Your task to perform on an android device: check out phone information Image 0: 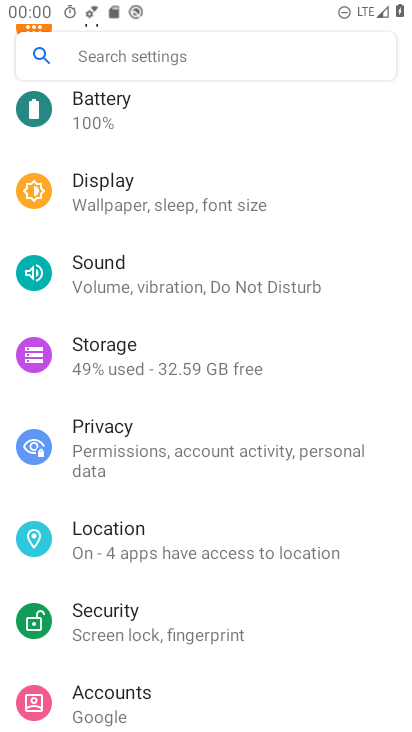
Step 0: click (169, 51)
Your task to perform on an android device: check out phone information Image 1: 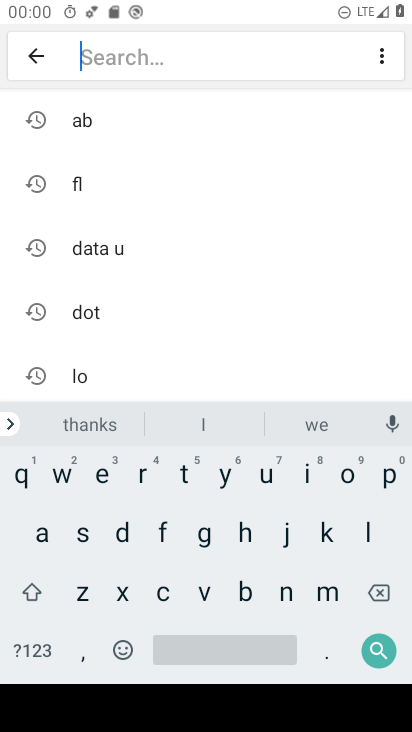
Step 1: click (41, 536)
Your task to perform on an android device: check out phone information Image 2: 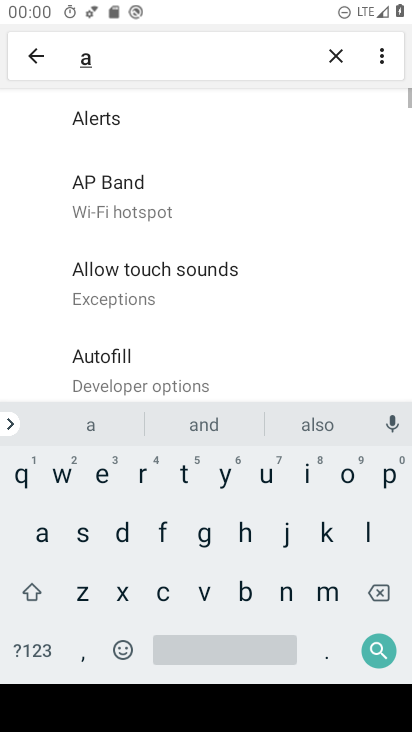
Step 2: click (253, 593)
Your task to perform on an android device: check out phone information Image 3: 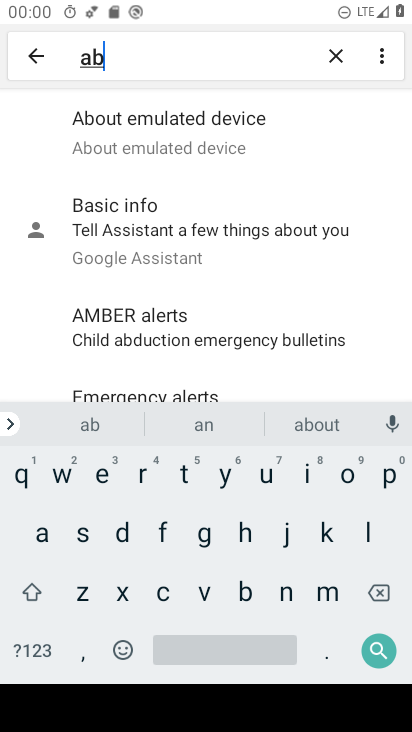
Step 3: click (166, 122)
Your task to perform on an android device: check out phone information Image 4: 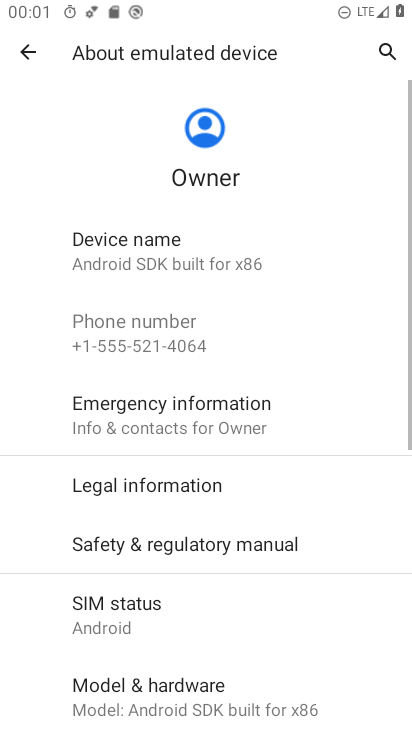
Step 4: task complete